Your task to perform on an android device: Open wifi settings Image 0: 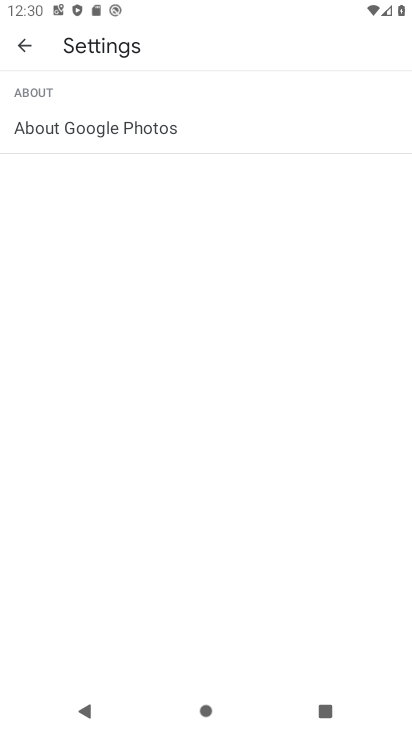
Step 0: press home button
Your task to perform on an android device: Open wifi settings Image 1: 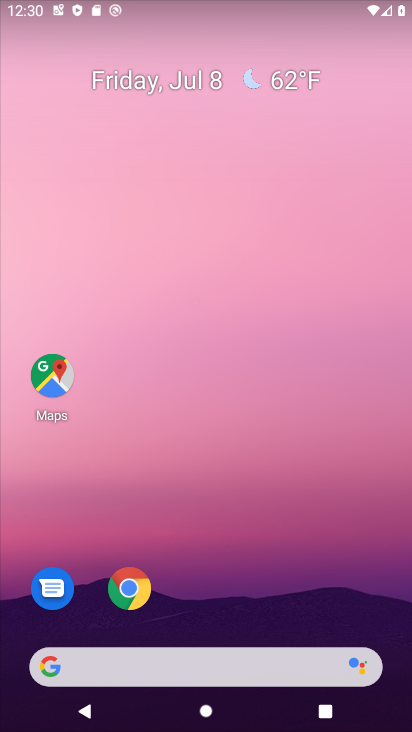
Step 1: drag from (231, 77) to (141, 5)
Your task to perform on an android device: Open wifi settings Image 2: 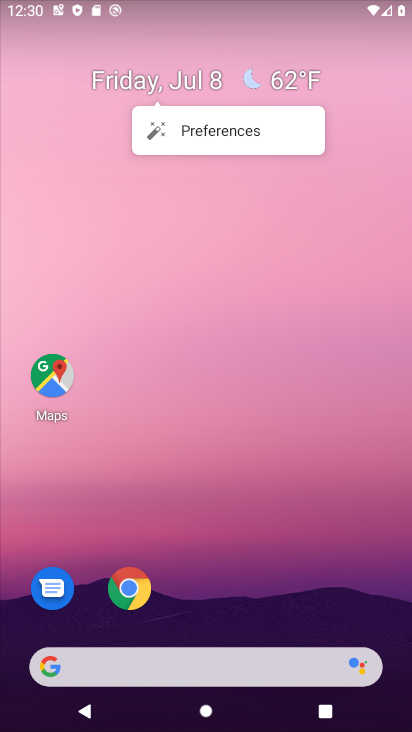
Step 2: drag from (192, 486) to (141, 83)
Your task to perform on an android device: Open wifi settings Image 3: 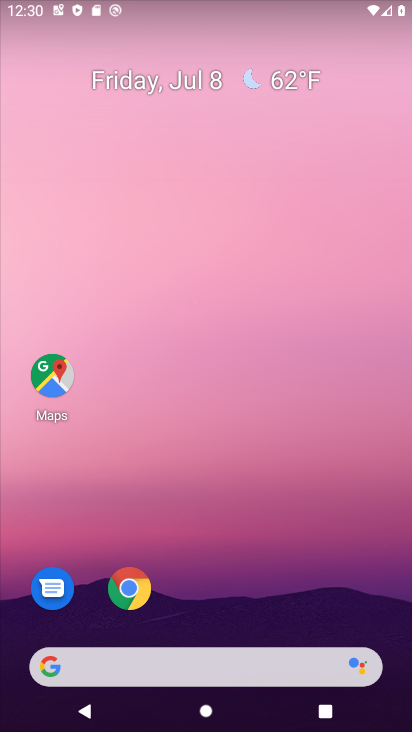
Step 3: drag from (171, 570) to (206, 3)
Your task to perform on an android device: Open wifi settings Image 4: 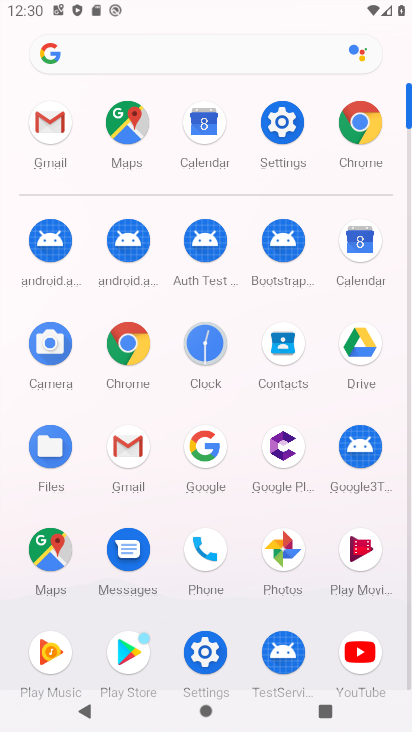
Step 4: click (279, 155)
Your task to perform on an android device: Open wifi settings Image 5: 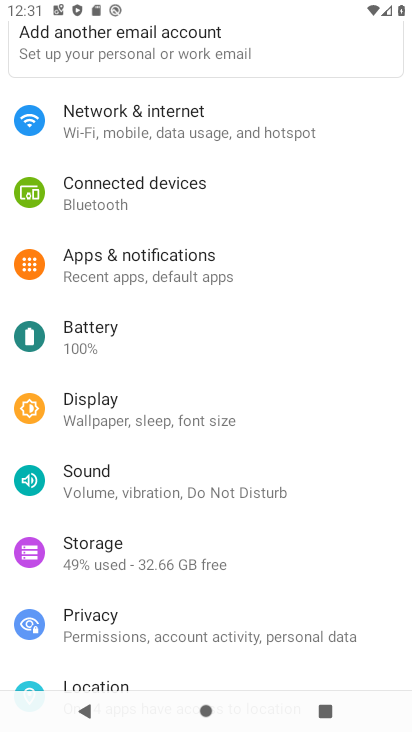
Step 5: click (279, 155)
Your task to perform on an android device: Open wifi settings Image 6: 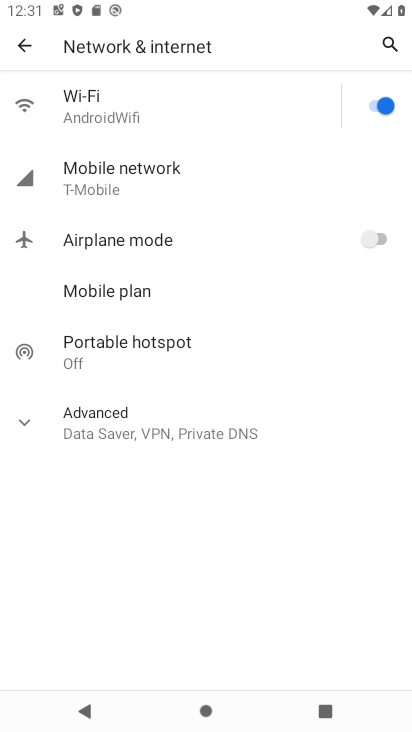
Step 6: click (244, 109)
Your task to perform on an android device: Open wifi settings Image 7: 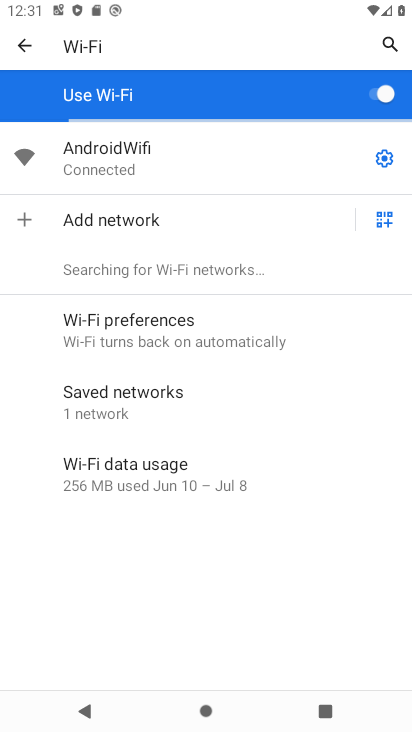
Step 7: task complete